Your task to perform on an android device: Search for 3d printed chess sets on Etsy. Image 0: 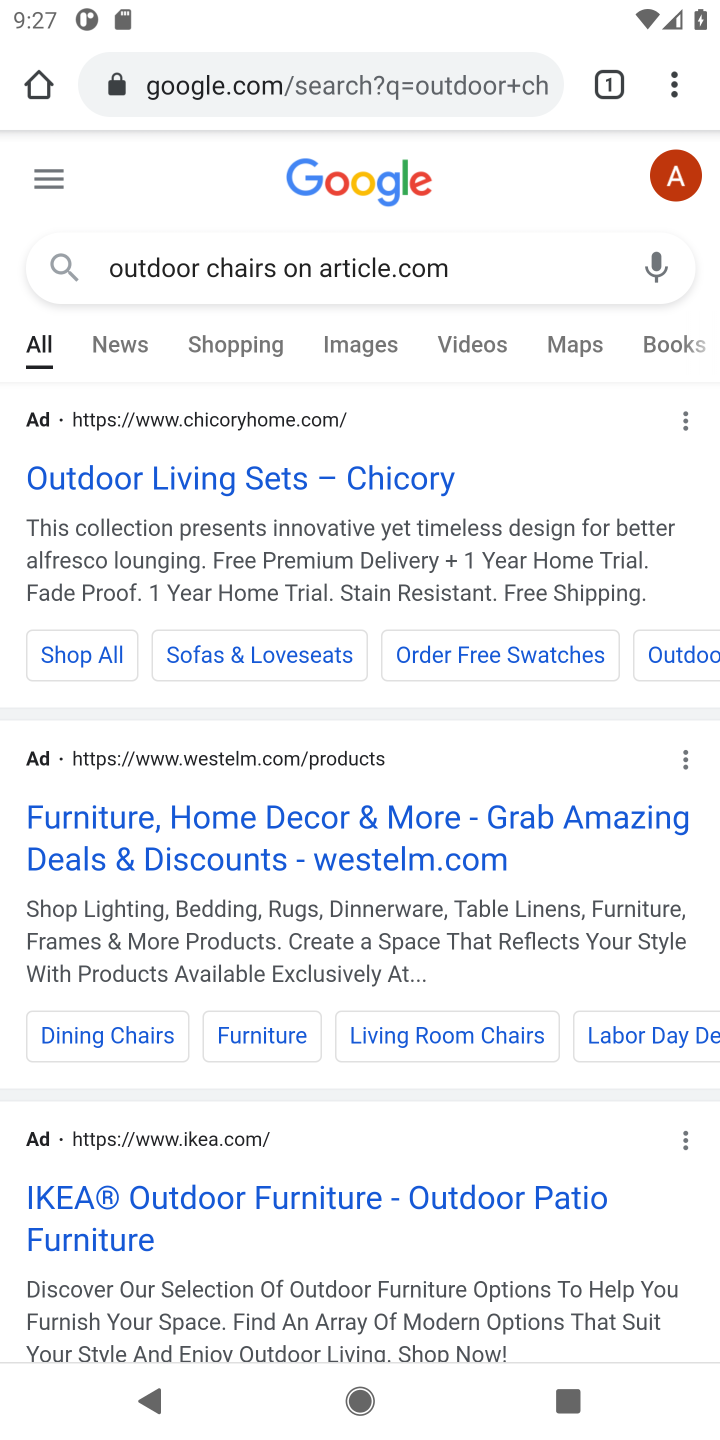
Step 0: click (239, 88)
Your task to perform on an android device: Search for 3d printed chess sets on Etsy. Image 1: 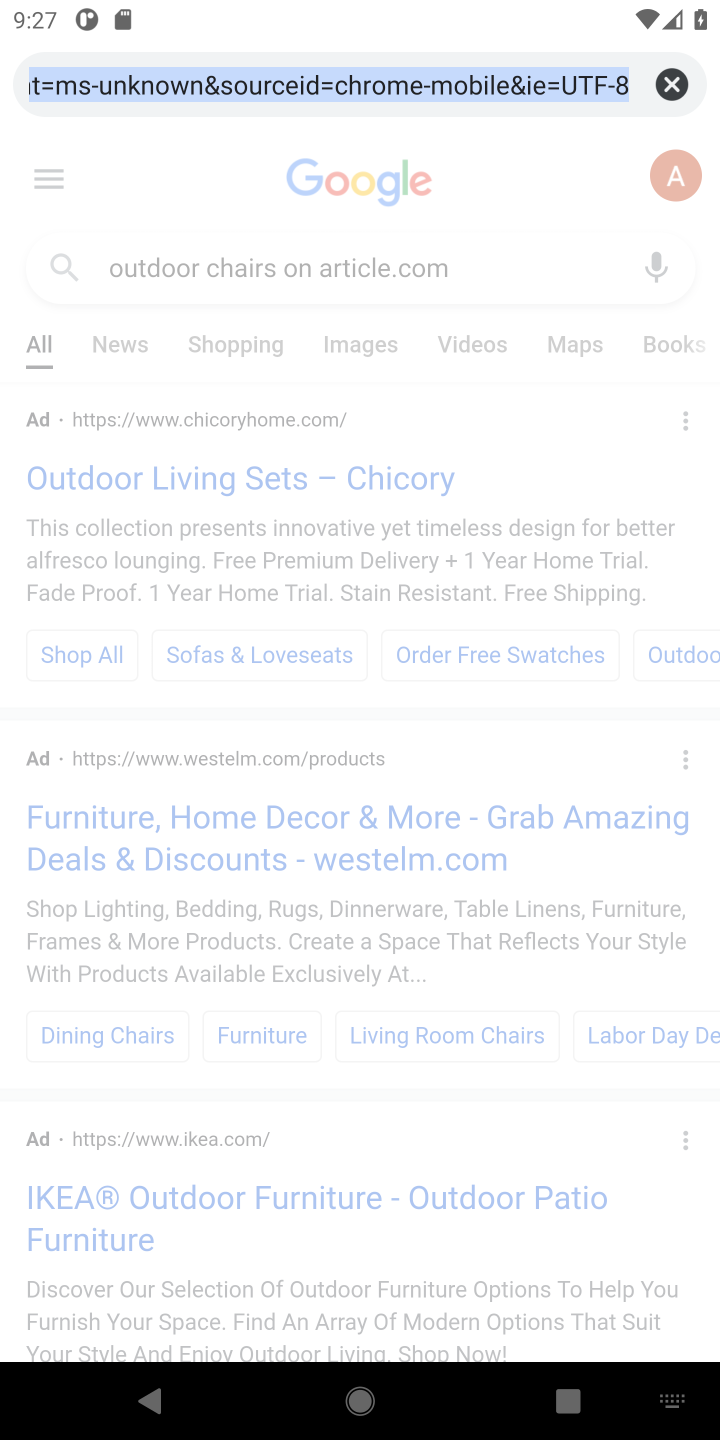
Step 1: click (673, 89)
Your task to perform on an android device: Search for 3d printed chess sets on Etsy. Image 2: 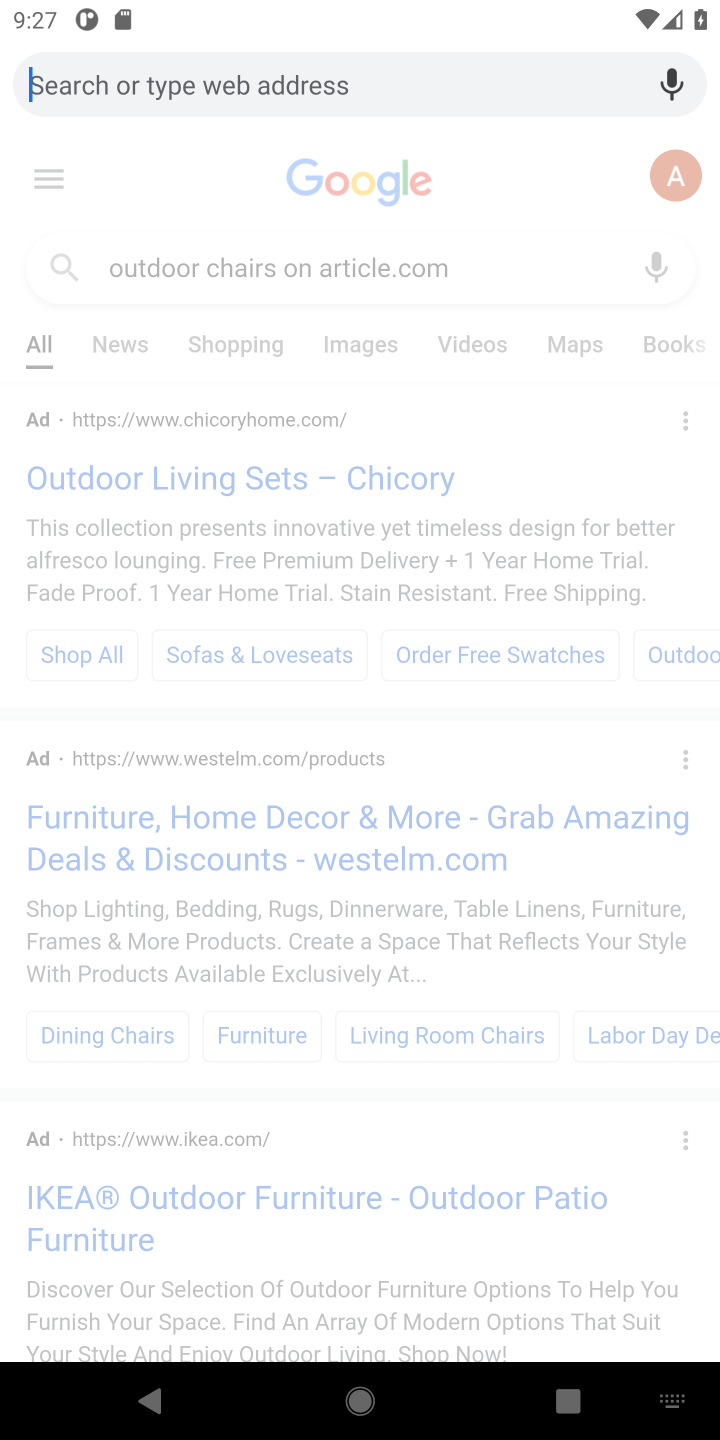
Step 2: click (413, 92)
Your task to perform on an android device: Search for 3d printed chess sets on Etsy. Image 3: 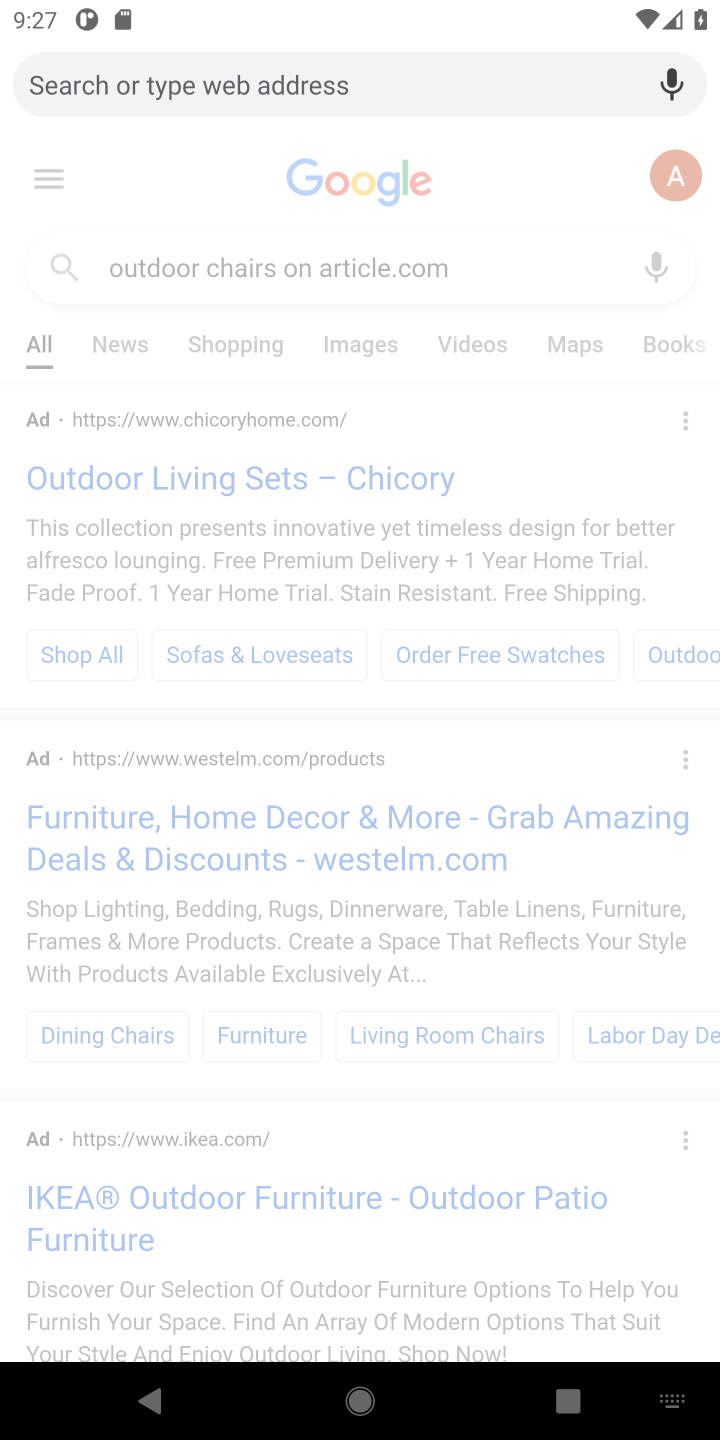
Step 3: type "3d printed chess sets on Etsy"
Your task to perform on an android device: Search for 3d printed chess sets on Etsy. Image 4: 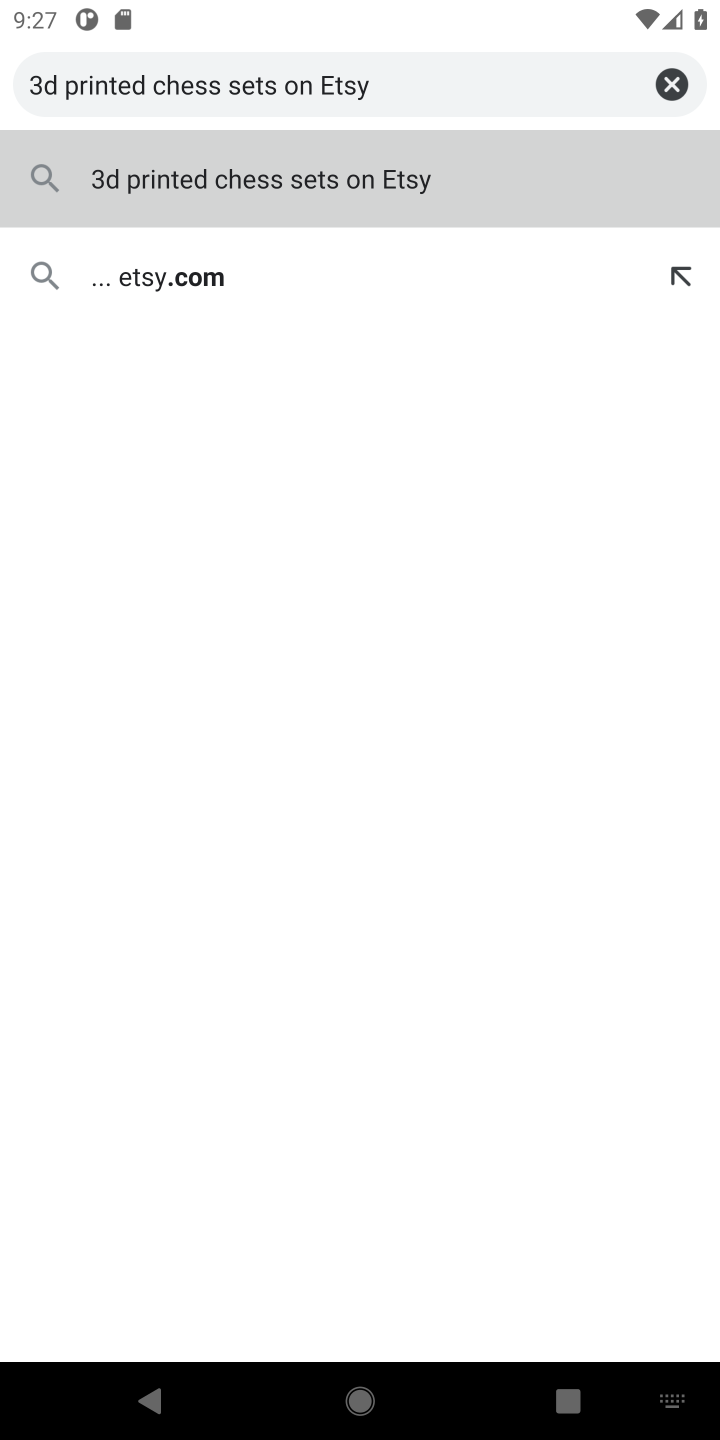
Step 4: click (157, 283)
Your task to perform on an android device: Search for 3d printed chess sets on Etsy. Image 5: 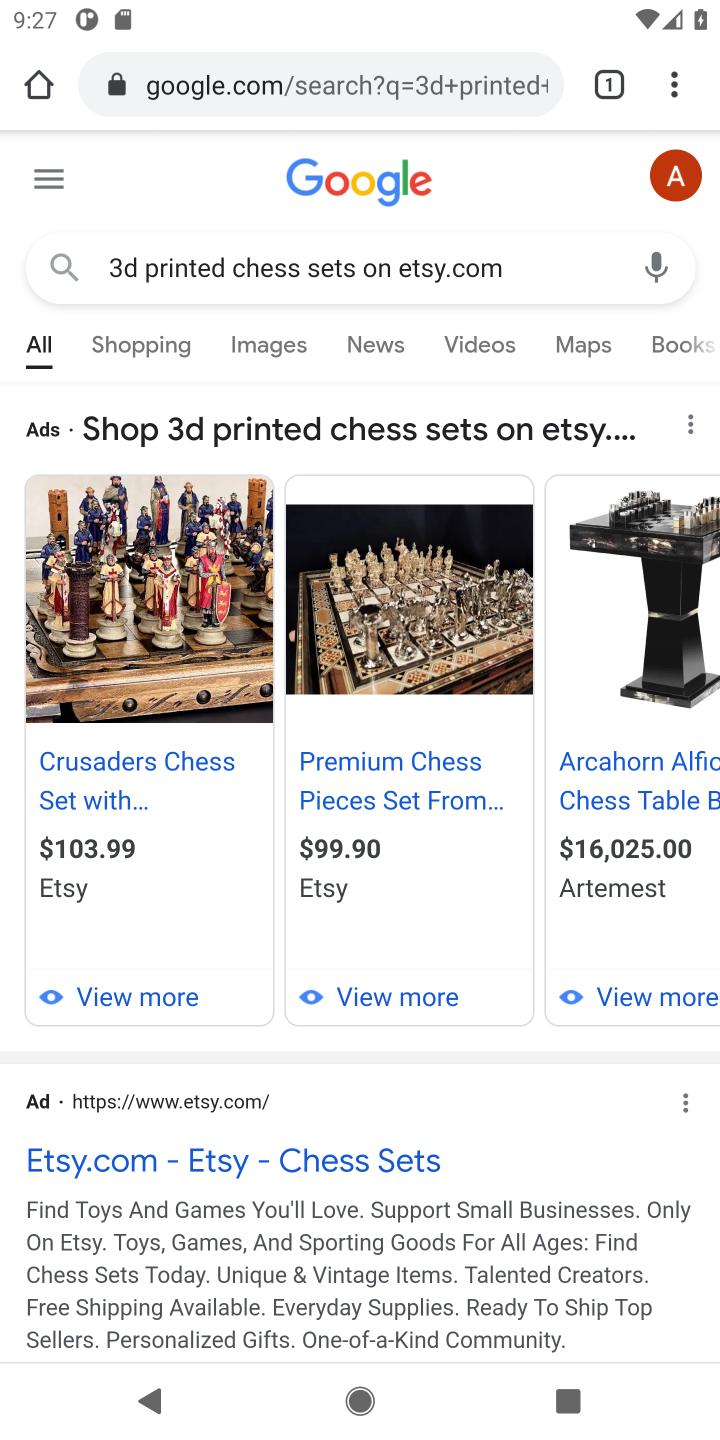
Step 5: click (131, 767)
Your task to perform on an android device: Search for 3d printed chess sets on Etsy. Image 6: 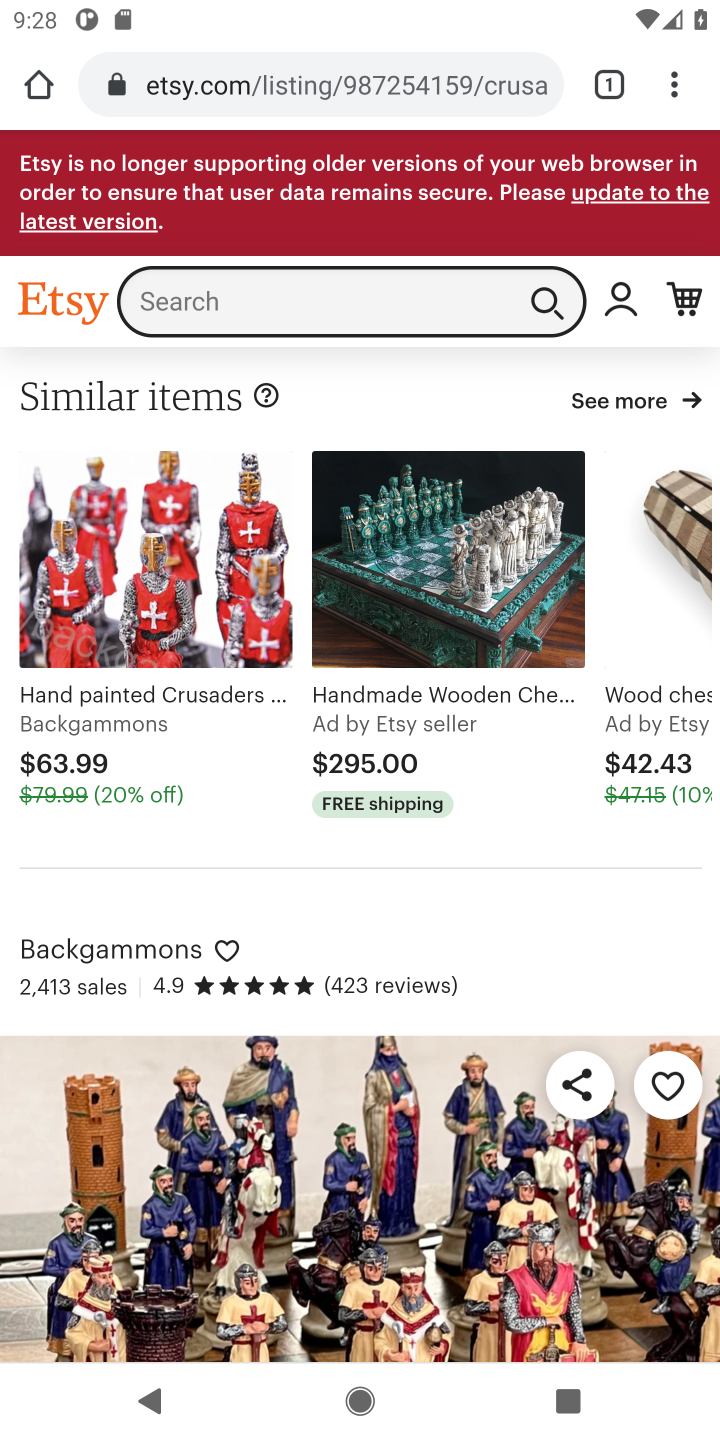
Step 6: task complete